Your task to perform on an android device: delete the emails in spam in the gmail app Image 0: 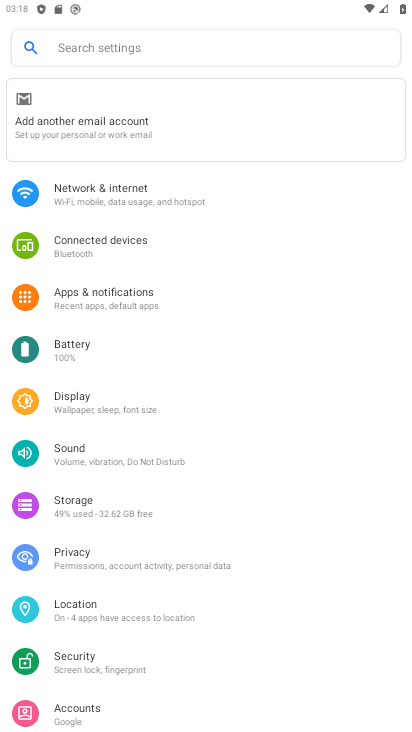
Step 0: press home button
Your task to perform on an android device: delete the emails in spam in the gmail app Image 1: 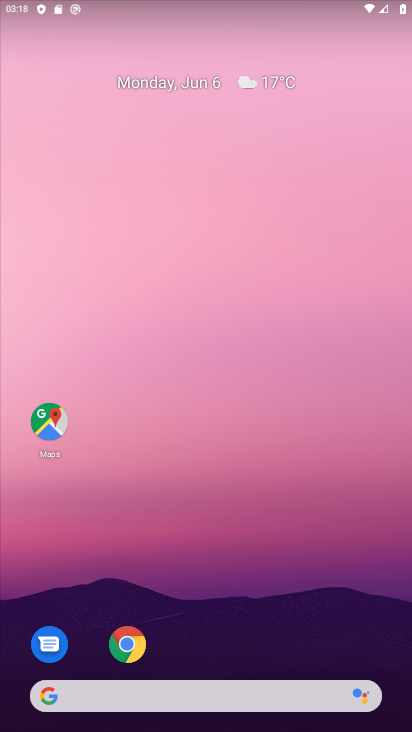
Step 1: drag from (394, 621) to (357, 26)
Your task to perform on an android device: delete the emails in spam in the gmail app Image 2: 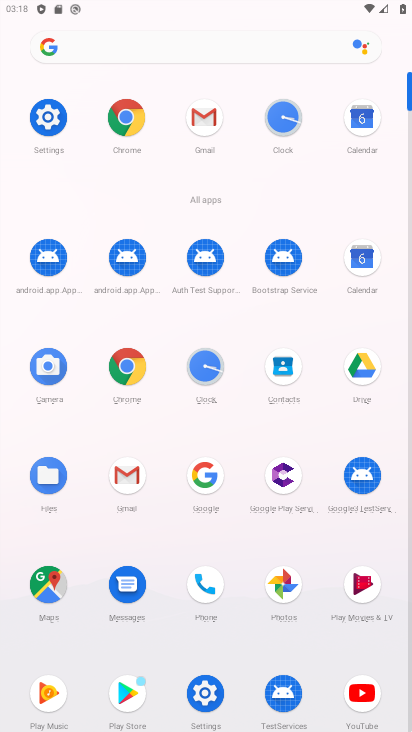
Step 2: click (130, 474)
Your task to perform on an android device: delete the emails in spam in the gmail app Image 3: 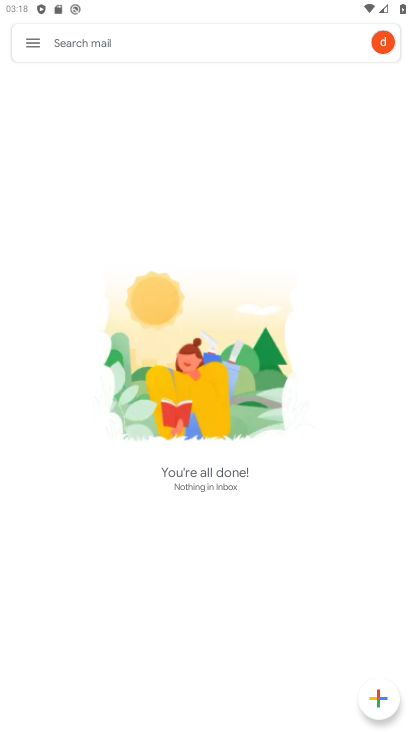
Step 3: click (29, 38)
Your task to perform on an android device: delete the emails in spam in the gmail app Image 4: 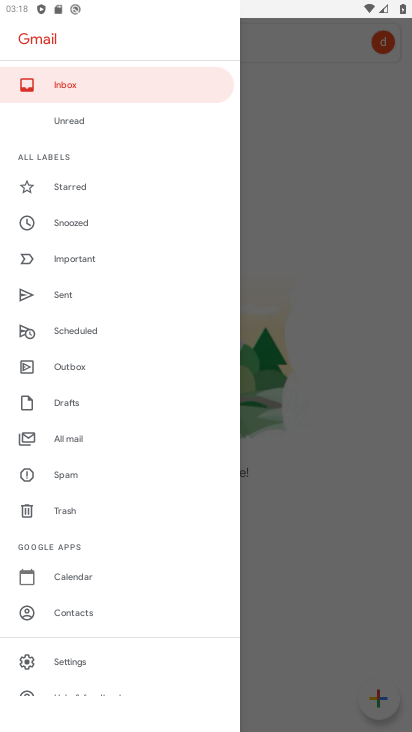
Step 4: click (59, 476)
Your task to perform on an android device: delete the emails in spam in the gmail app Image 5: 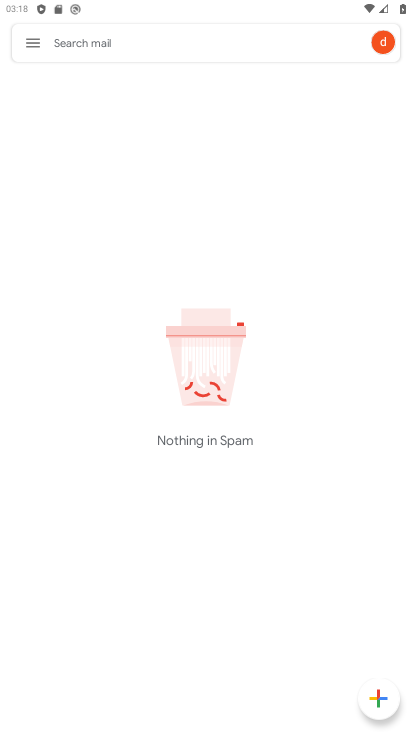
Step 5: task complete